Your task to perform on an android device: turn on priority inbox in the gmail app Image 0: 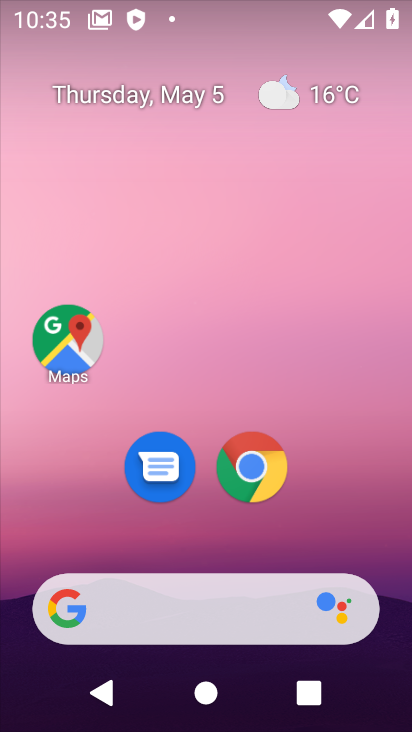
Step 0: drag from (200, 502) to (237, 71)
Your task to perform on an android device: turn on priority inbox in the gmail app Image 1: 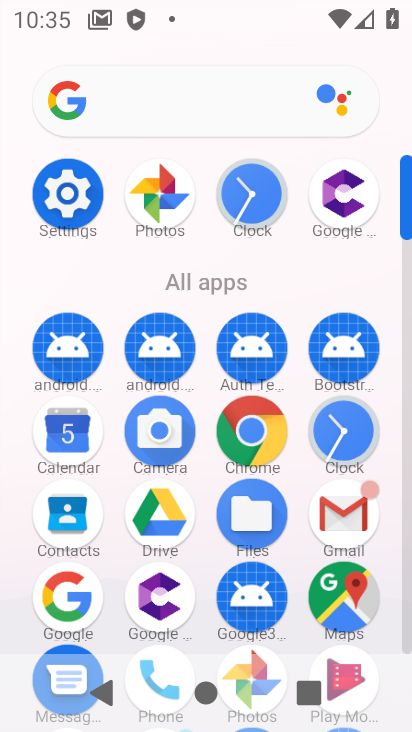
Step 1: click (341, 516)
Your task to perform on an android device: turn on priority inbox in the gmail app Image 2: 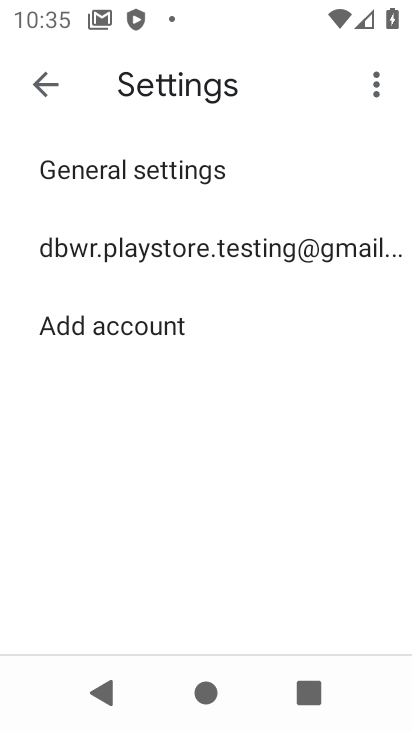
Step 2: click (139, 254)
Your task to perform on an android device: turn on priority inbox in the gmail app Image 3: 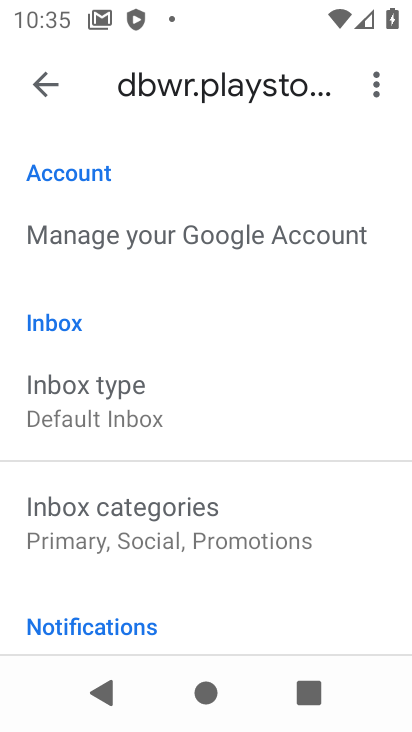
Step 3: click (109, 395)
Your task to perform on an android device: turn on priority inbox in the gmail app Image 4: 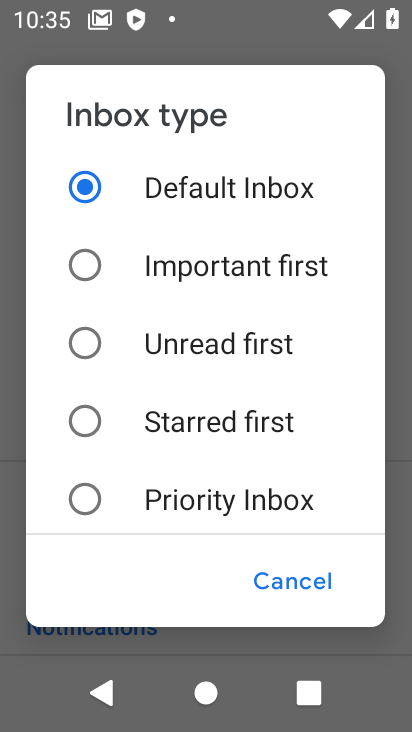
Step 4: click (88, 508)
Your task to perform on an android device: turn on priority inbox in the gmail app Image 5: 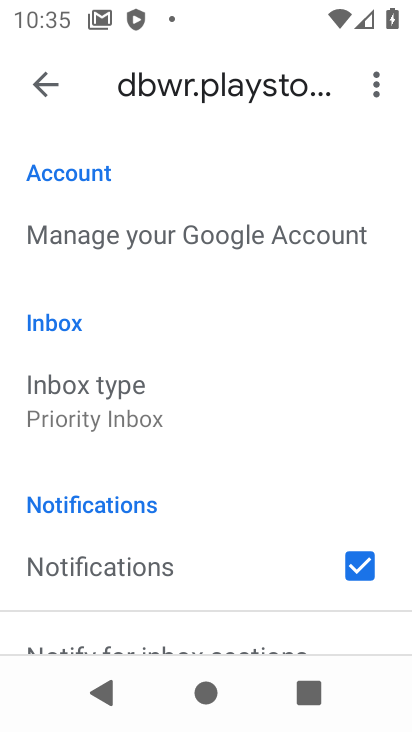
Step 5: task complete